Your task to perform on an android device: turn off smart reply in the gmail app Image 0: 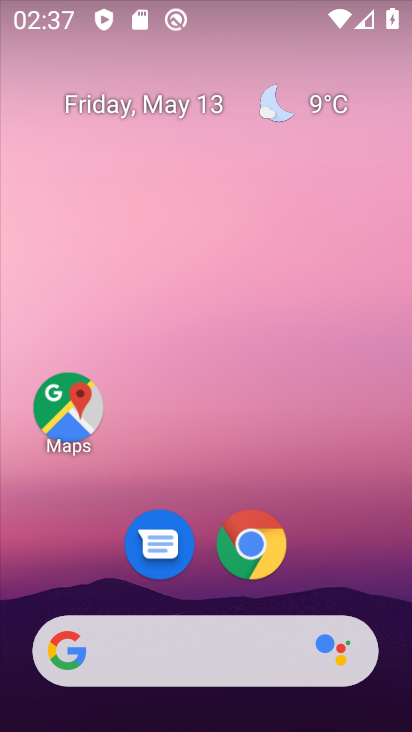
Step 0: drag from (327, 456) to (226, 15)
Your task to perform on an android device: turn off smart reply in the gmail app Image 1: 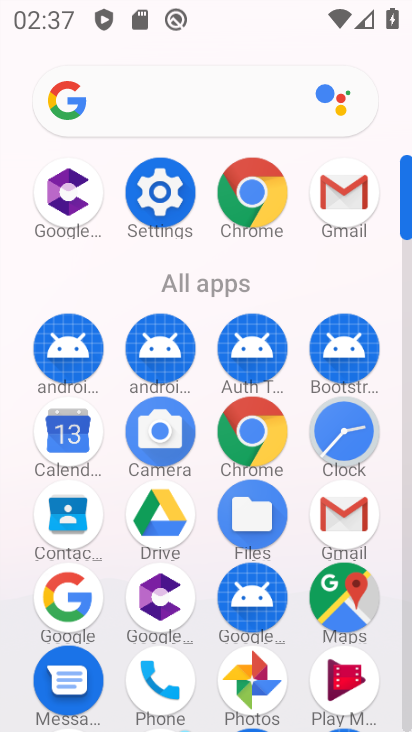
Step 1: drag from (2, 541) to (0, 238)
Your task to perform on an android device: turn off smart reply in the gmail app Image 2: 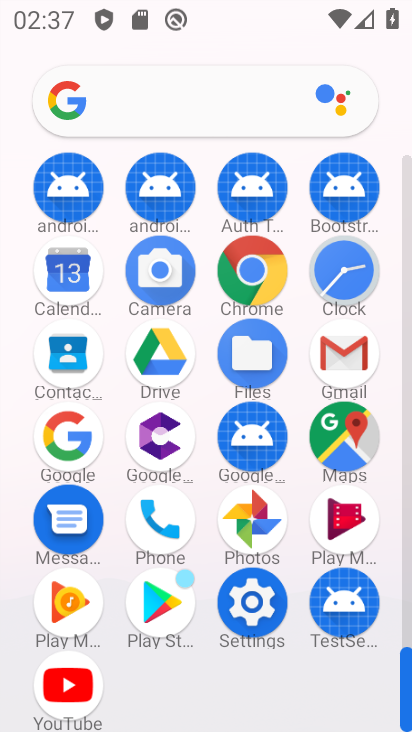
Step 2: click (339, 346)
Your task to perform on an android device: turn off smart reply in the gmail app Image 3: 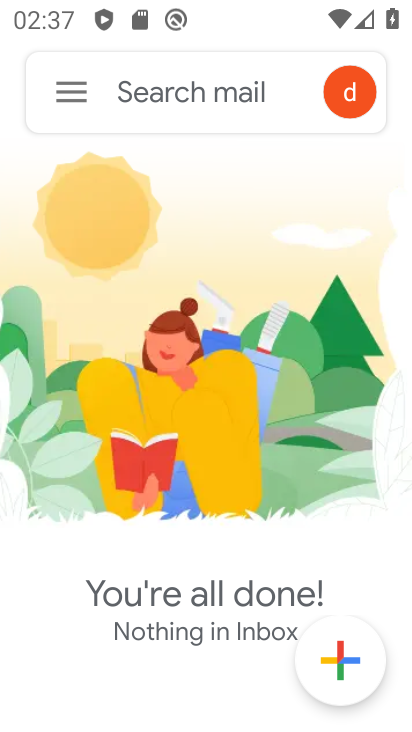
Step 3: click (62, 88)
Your task to perform on an android device: turn off smart reply in the gmail app Image 4: 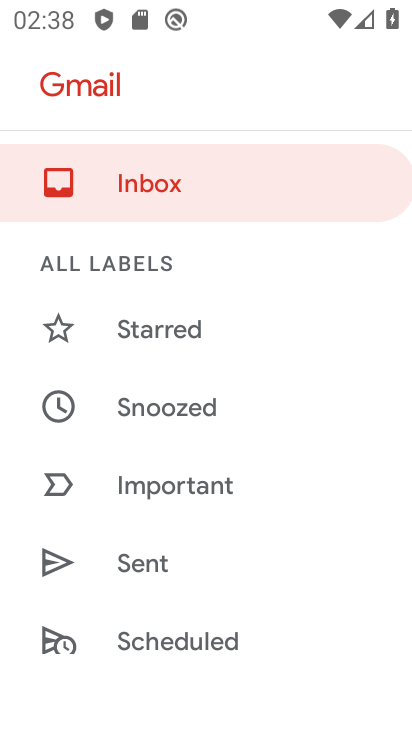
Step 4: drag from (276, 647) to (265, 218)
Your task to perform on an android device: turn off smart reply in the gmail app Image 5: 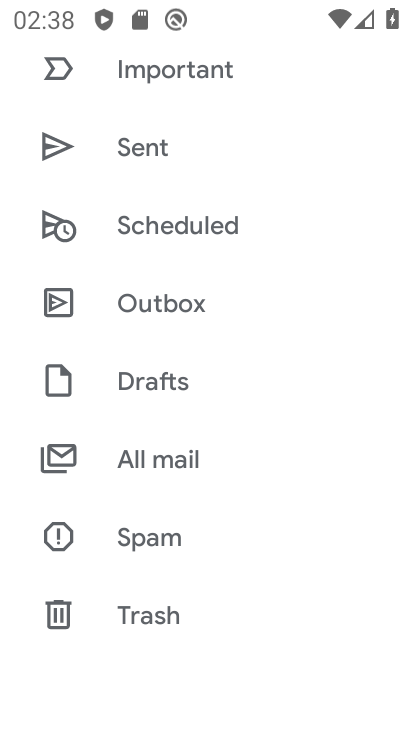
Step 5: drag from (195, 556) to (208, 164)
Your task to perform on an android device: turn off smart reply in the gmail app Image 6: 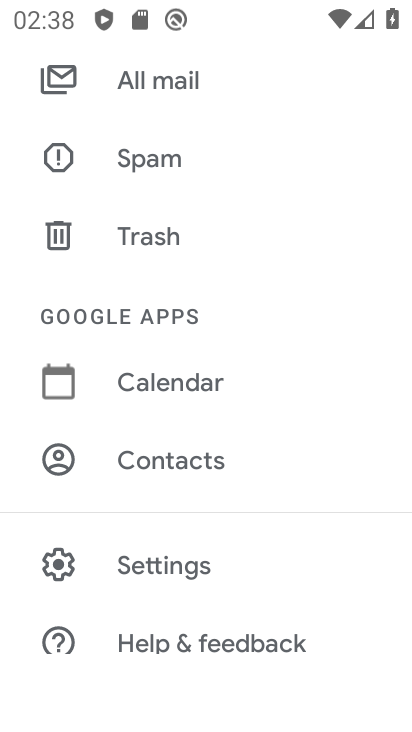
Step 6: click (179, 568)
Your task to perform on an android device: turn off smart reply in the gmail app Image 7: 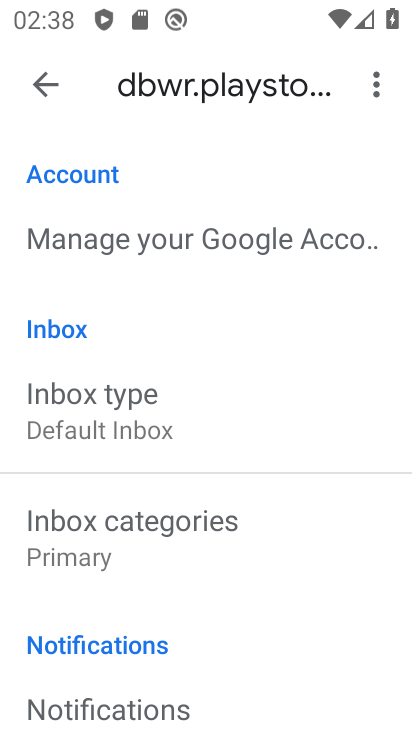
Step 7: drag from (226, 574) to (234, 202)
Your task to perform on an android device: turn off smart reply in the gmail app Image 8: 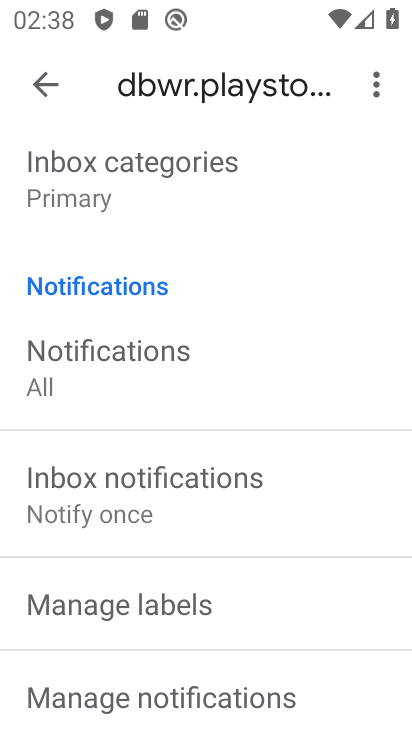
Step 8: drag from (276, 521) to (268, 157)
Your task to perform on an android device: turn off smart reply in the gmail app Image 9: 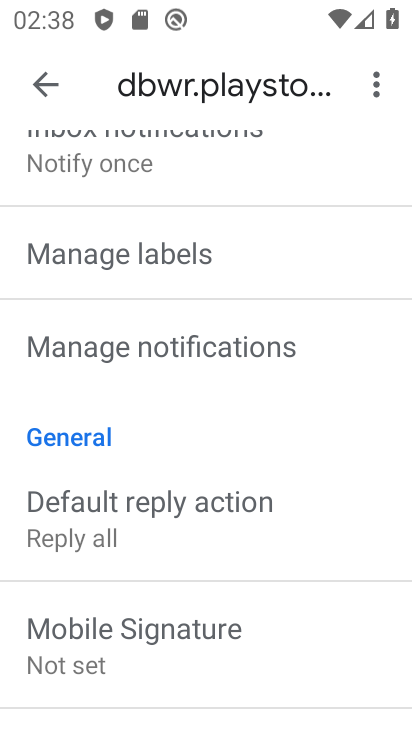
Step 9: drag from (284, 513) to (281, 182)
Your task to perform on an android device: turn off smart reply in the gmail app Image 10: 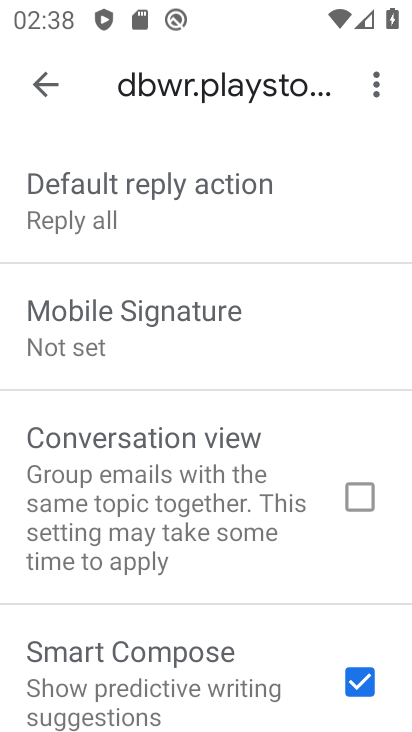
Step 10: drag from (250, 519) to (244, 181)
Your task to perform on an android device: turn off smart reply in the gmail app Image 11: 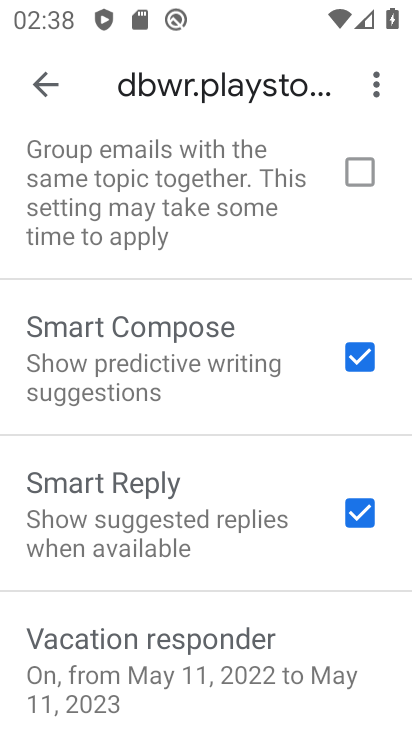
Step 11: drag from (193, 572) to (193, 187)
Your task to perform on an android device: turn off smart reply in the gmail app Image 12: 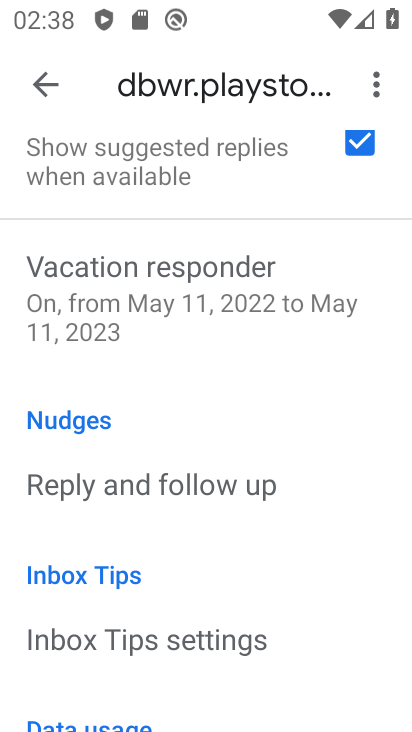
Step 12: drag from (192, 546) to (204, 123)
Your task to perform on an android device: turn off smart reply in the gmail app Image 13: 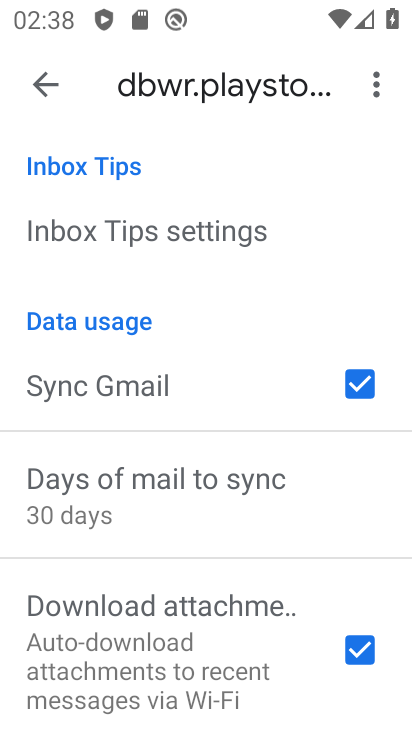
Step 13: drag from (184, 593) to (220, 140)
Your task to perform on an android device: turn off smart reply in the gmail app Image 14: 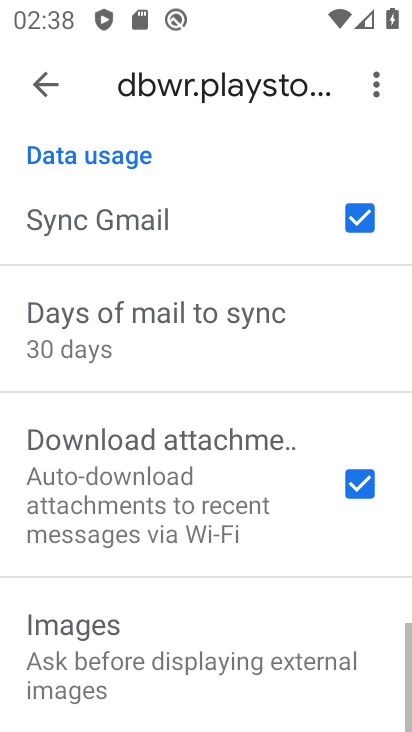
Step 14: drag from (223, 152) to (209, 648)
Your task to perform on an android device: turn off smart reply in the gmail app Image 15: 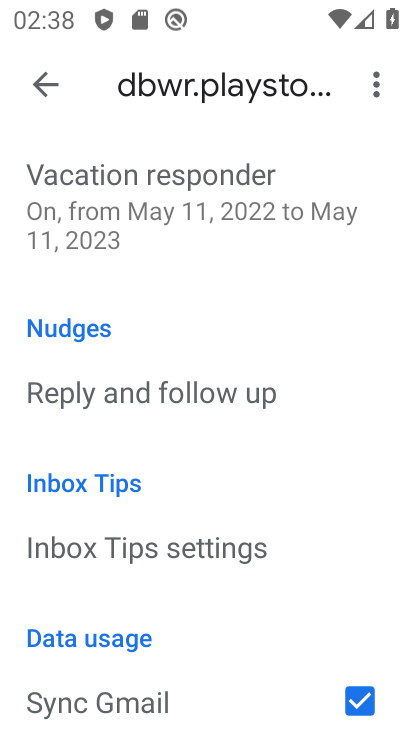
Step 15: drag from (221, 251) to (242, 718)
Your task to perform on an android device: turn off smart reply in the gmail app Image 16: 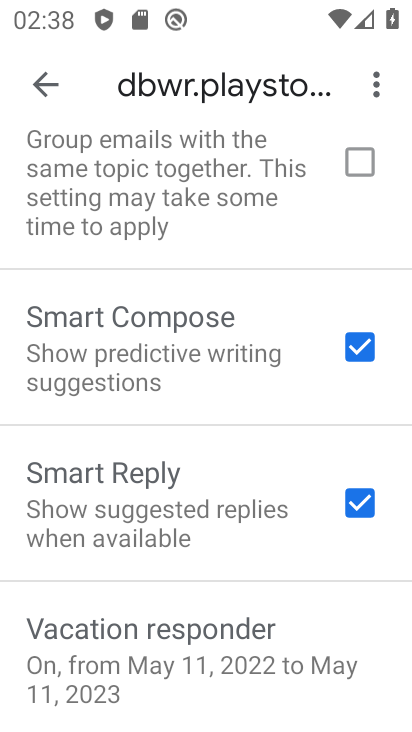
Step 16: drag from (230, 254) to (187, 623)
Your task to perform on an android device: turn off smart reply in the gmail app Image 17: 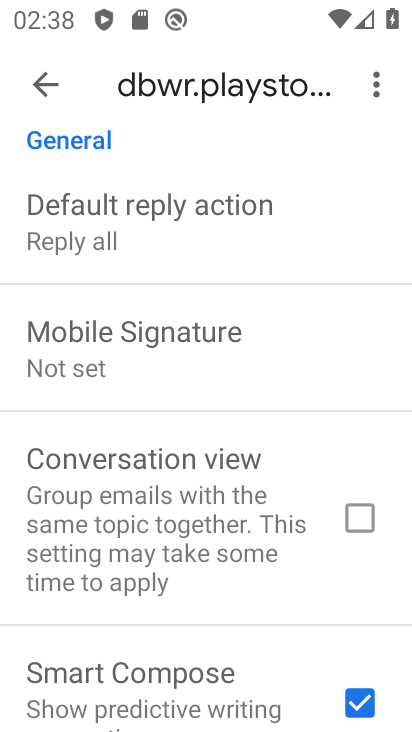
Step 17: drag from (214, 237) to (184, 614)
Your task to perform on an android device: turn off smart reply in the gmail app Image 18: 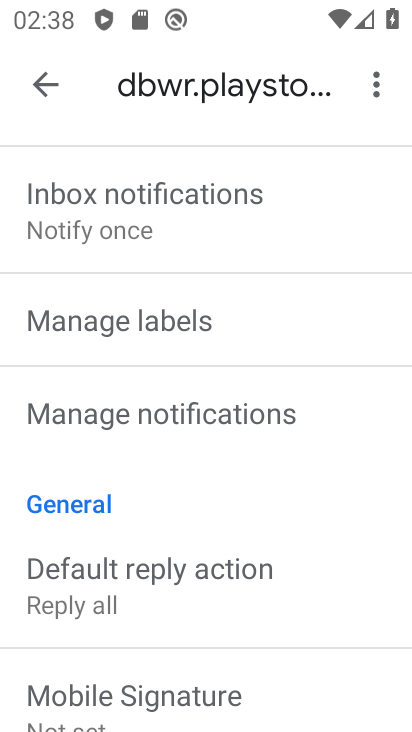
Step 18: drag from (242, 171) to (230, 646)
Your task to perform on an android device: turn off smart reply in the gmail app Image 19: 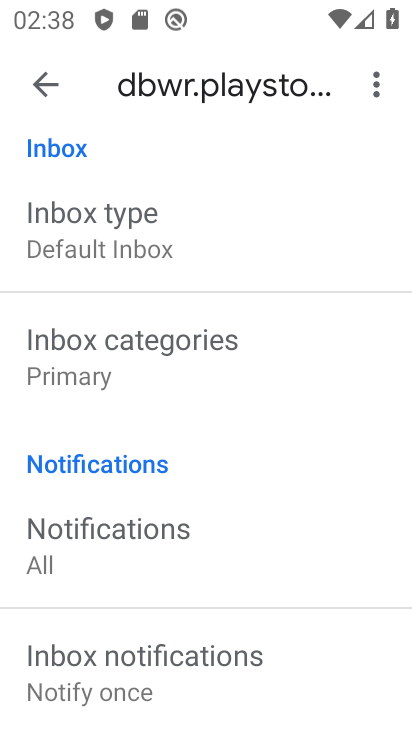
Step 19: drag from (253, 319) to (238, 605)
Your task to perform on an android device: turn off smart reply in the gmail app Image 20: 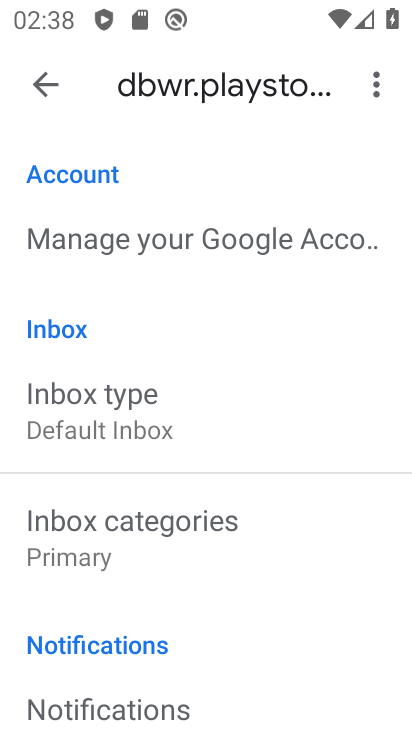
Step 20: drag from (223, 565) to (229, 153)
Your task to perform on an android device: turn off smart reply in the gmail app Image 21: 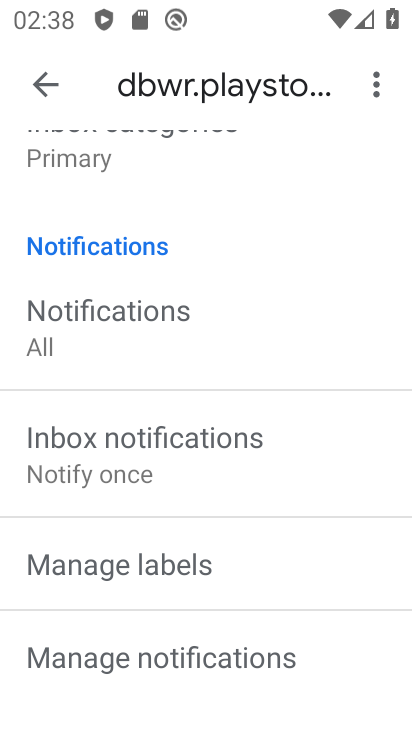
Step 21: drag from (231, 629) to (254, 109)
Your task to perform on an android device: turn off smart reply in the gmail app Image 22: 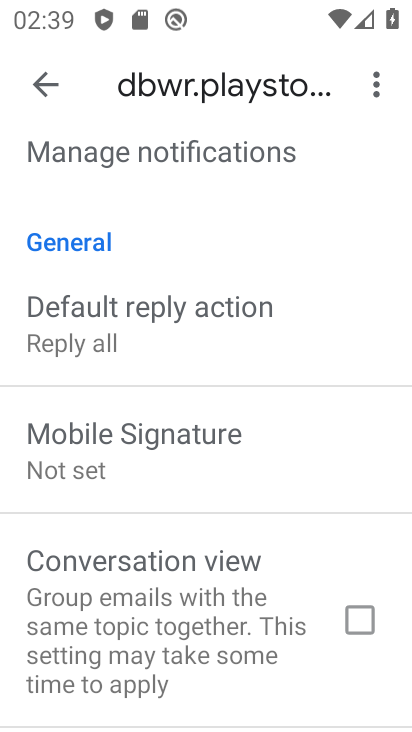
Step 22: drag from (185, 586) to (187, 155)
Your task to perform on an android device: turn off smart reply in the gmail app Image 23: 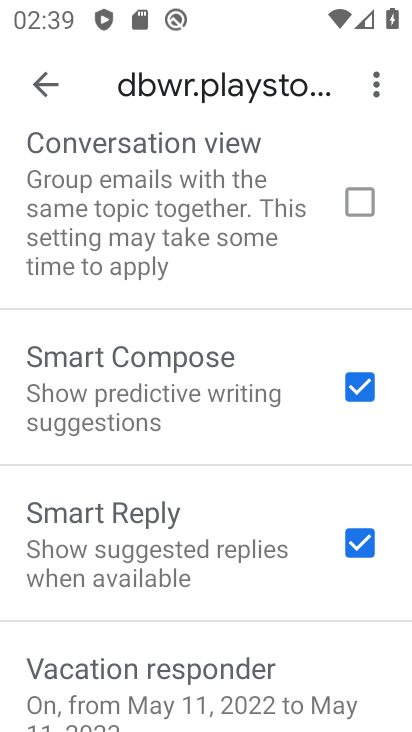
Step 23: click (357, 542)
Your task to perform on an android device: turn off smart reply in the gmail app Image 24: 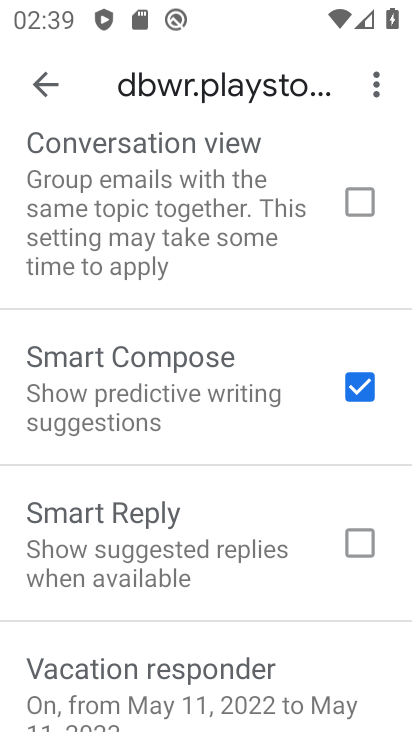
Step 24: task complete